Your task to perform on an android device: Open the web browser Image 0: 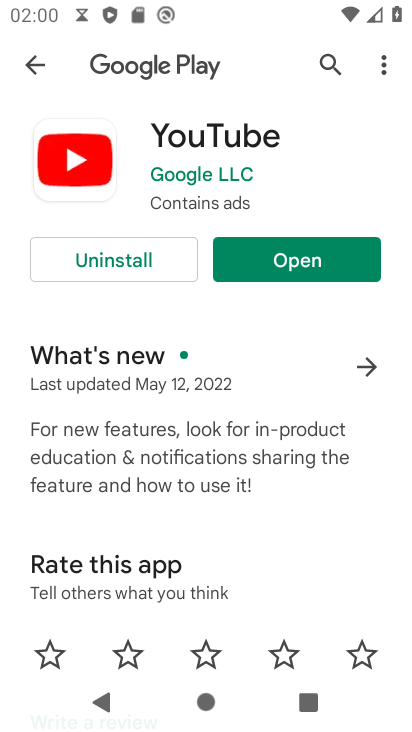
Step 0: press home button
Your task to perform on an android device: Open the web browser Image 1: 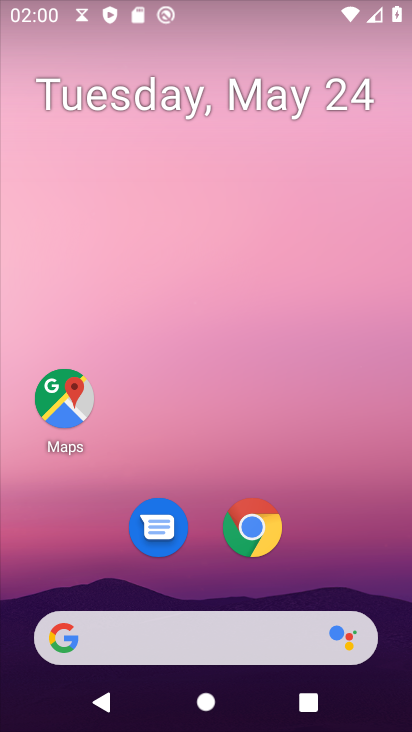
Step 1: click (265, 528)
Your task to perform on an android device: Open the web browser Image 2: 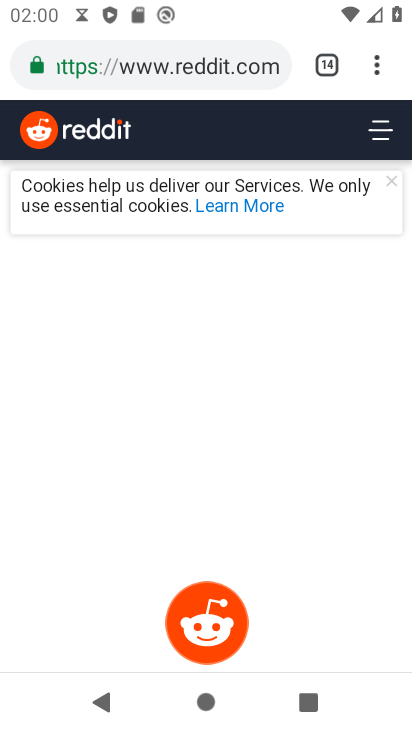
Step 2: task complete